Your task to perform on an android device: Open Google Maps Image 0: 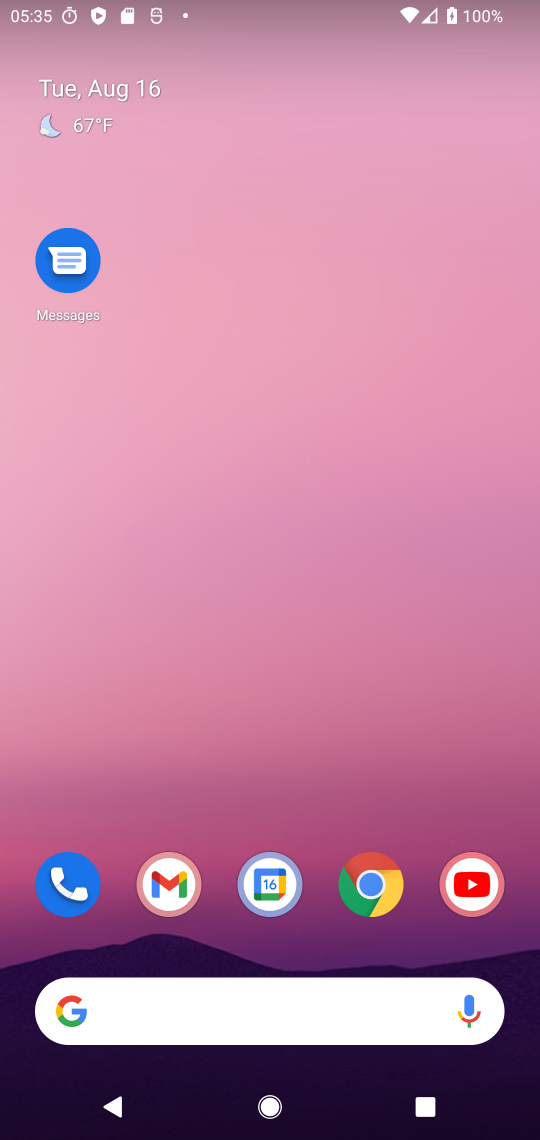
Step 0: drag from (42, 1069) to (459, 148)
Your task to perform on an android device: Open Google Maps Image 1: 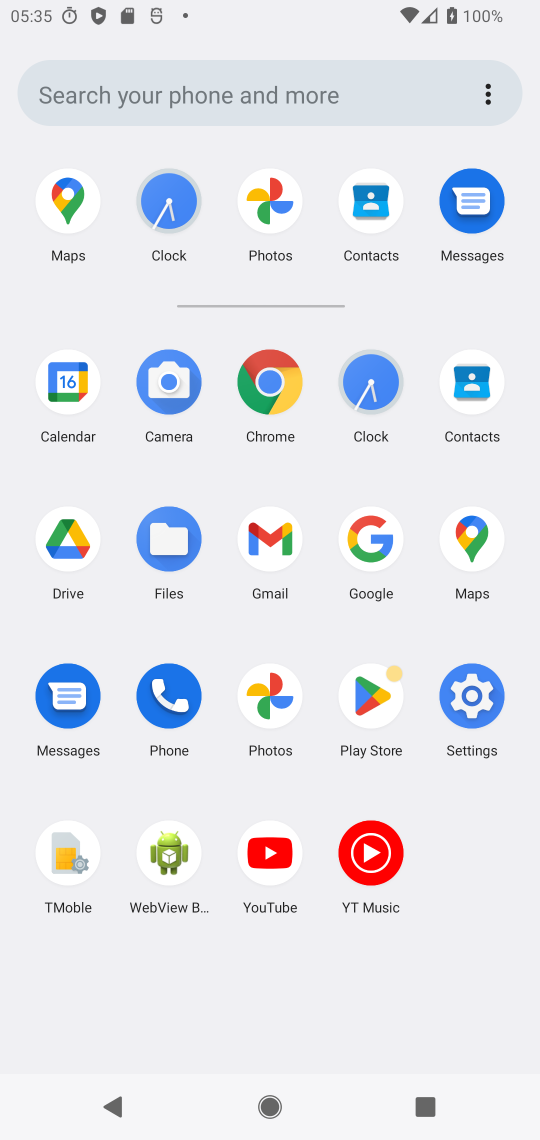
Step 1: click (473, 550)
Your task to perform on an android device: Open Google Maps Image 2: 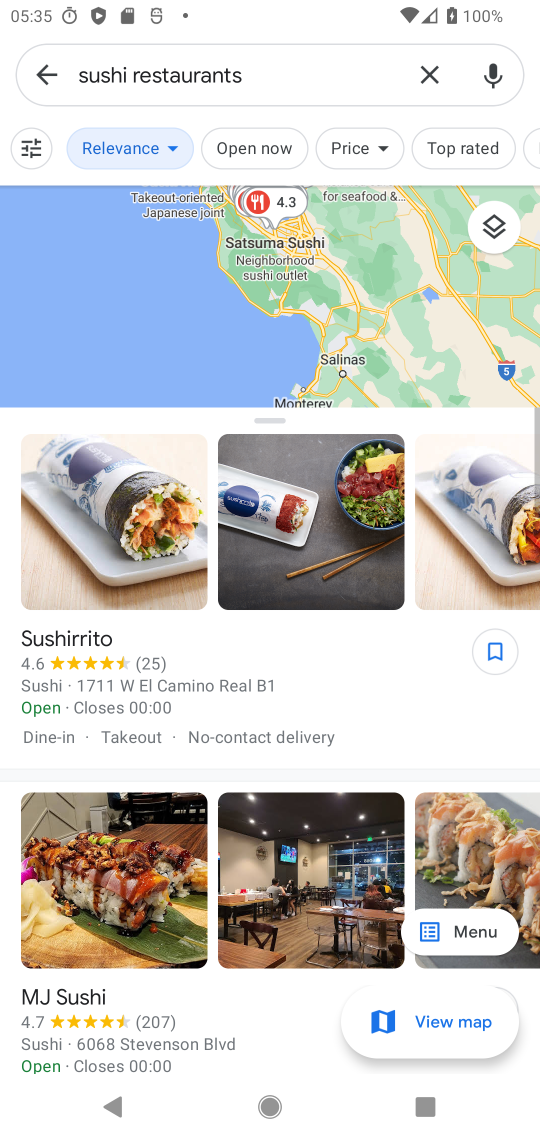
Step 2: click (37, 70)
Your task to perform on an android device: Open Google Maps Image 3: 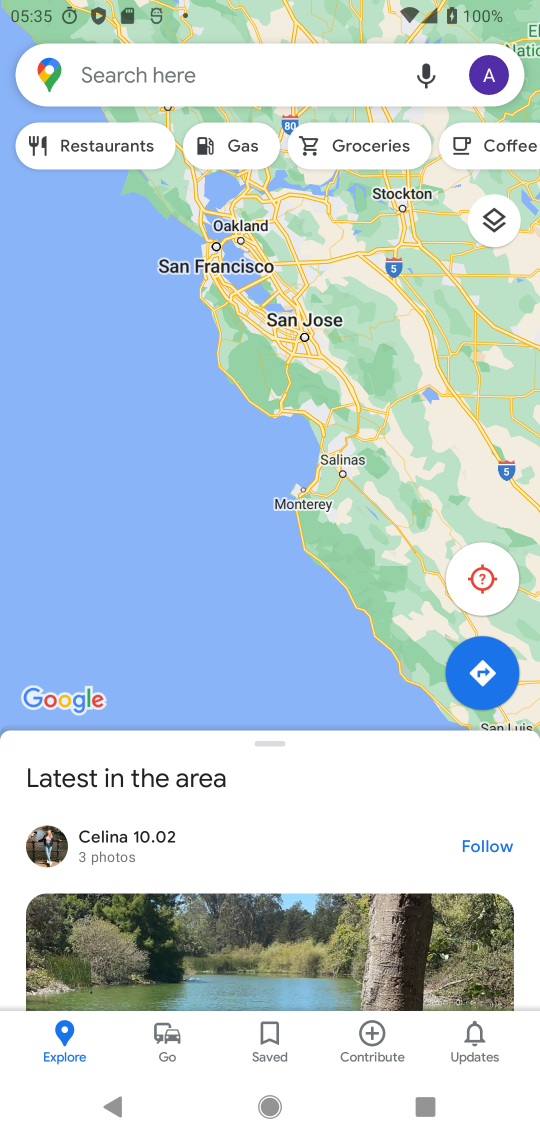
Step 3: task complete